Your task to perform on an android device: turn off smart reply in the gmail app Image 0: 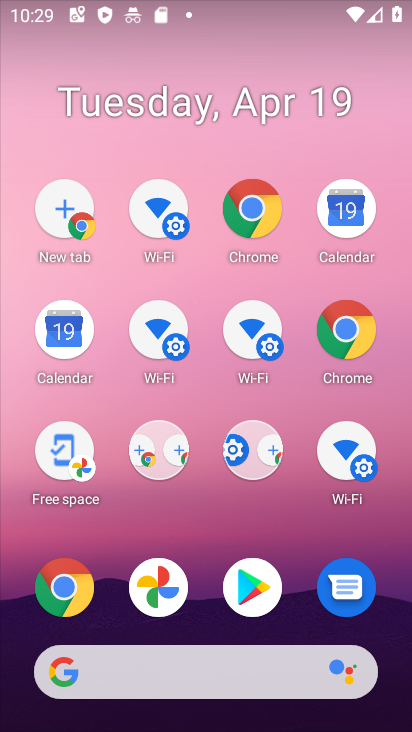
Step 0: drag from (303, 687) to (134, 299)
Your task to perform on an android device: turn off smart reply in the gmail app Image 1: 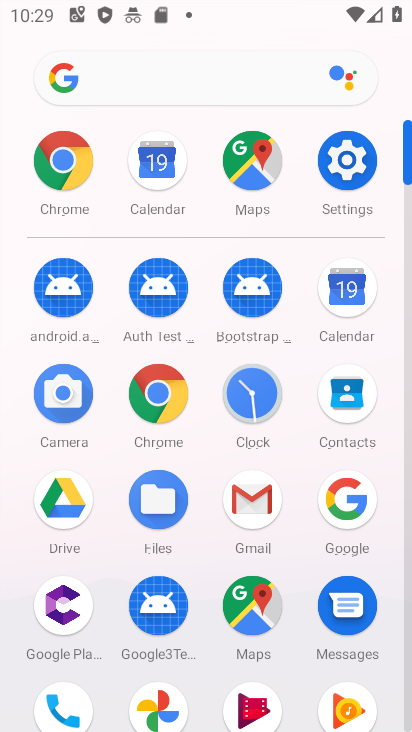
Step 1: click (253, 503)
Your task to perform on an android device: turn off smart reply in the gmail app Image 2: 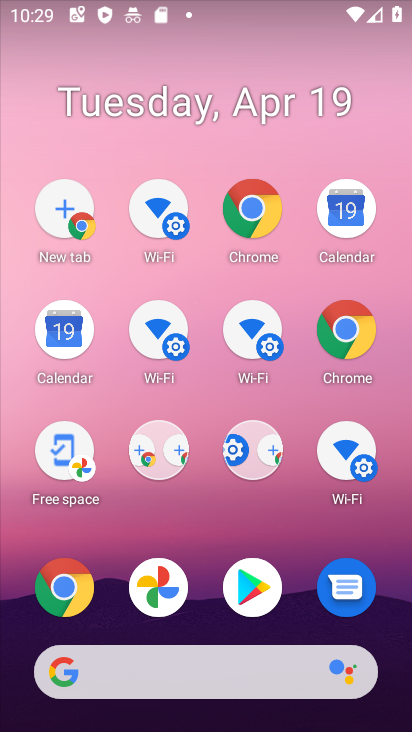
Step 2: drag from (314, 609) to (4, 131)
Your task to perform on an android device: turn off smart reply in the gmail app Image 3: 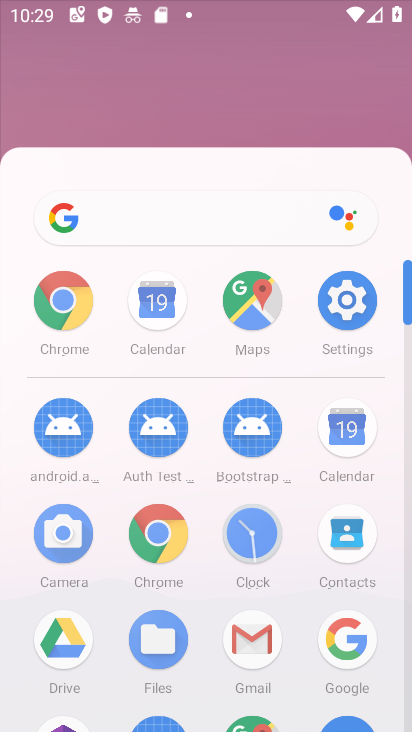
Step 3: drag from (157, 414) to (11, 88)
Your task to perform on an android device: turn off smart reply in the gmail app Image 4: 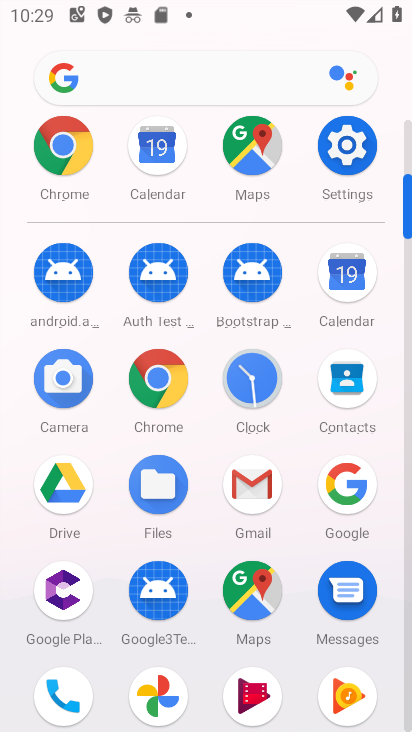
Step 4: click (244, 475)
Your task to perform on an android device: turn off smart reply in the gmail app Image 5: 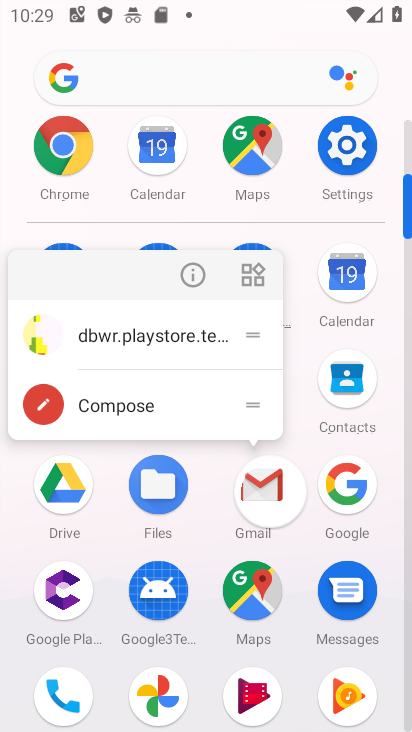
Step 5: click (262, 478)
Your task to perform on an android device: turn off smart reply in the gmail app Image 6: 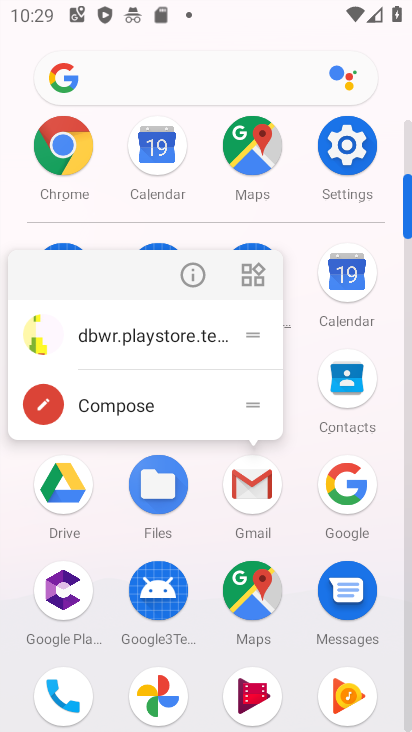
Step 6: click (260, 477)
Your task to perform on an android device: turn off smart reply in the gmail app Image 7: 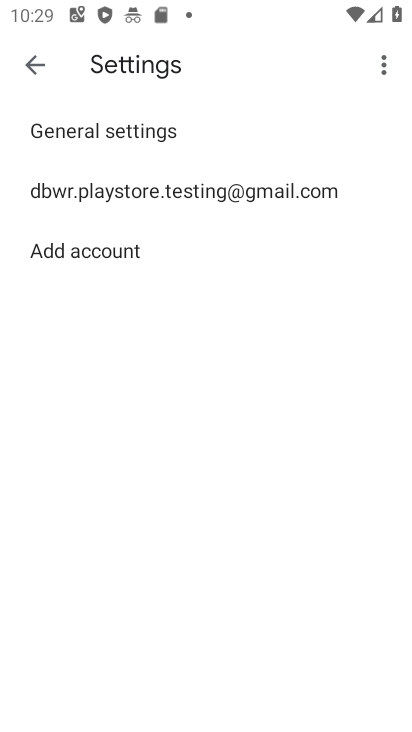
Step 7: click (124, 200)
Your task to perform on an android device: turn off smart reply in the gmail app Image 8: 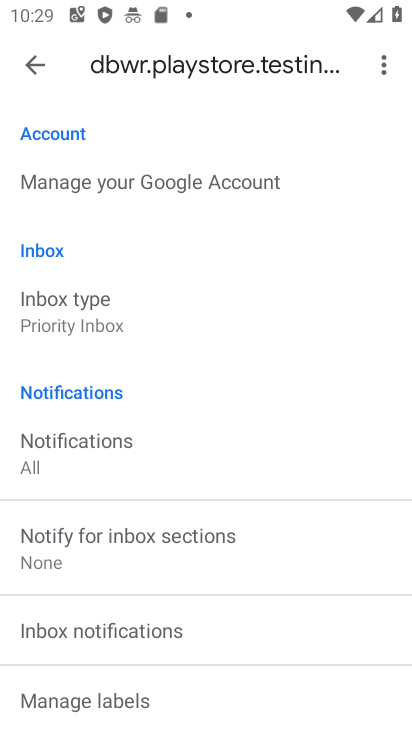
Step 8: drag from (34, 540) to (85, 334)
Your task to perform on an android device: turn off smart reply in the gmail app Image 9: 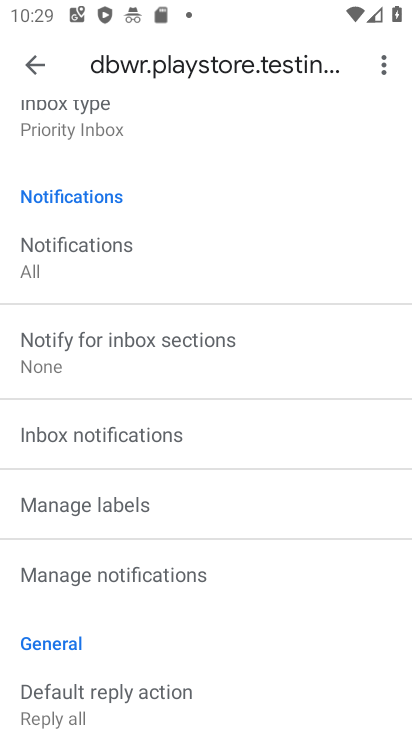
Step 9: drag from (210, 602) to (117, 315)
Your task to perform on an android device: turn off smart reply in the gmail app Image 10: 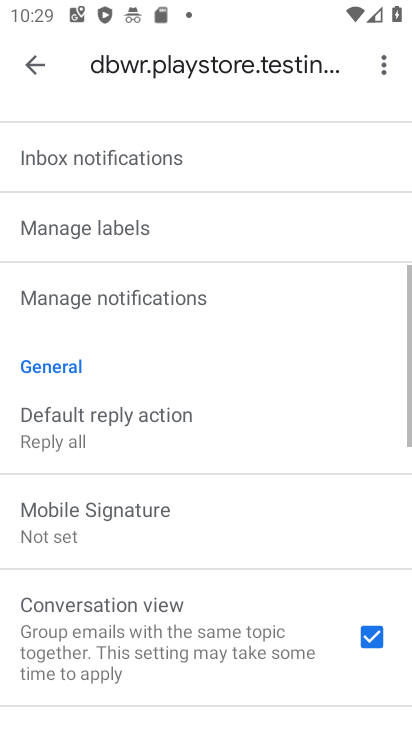
Step 10: click (52, 201)
Your task to perform on an android device: turn off smart reply in the gmail app Image 11: 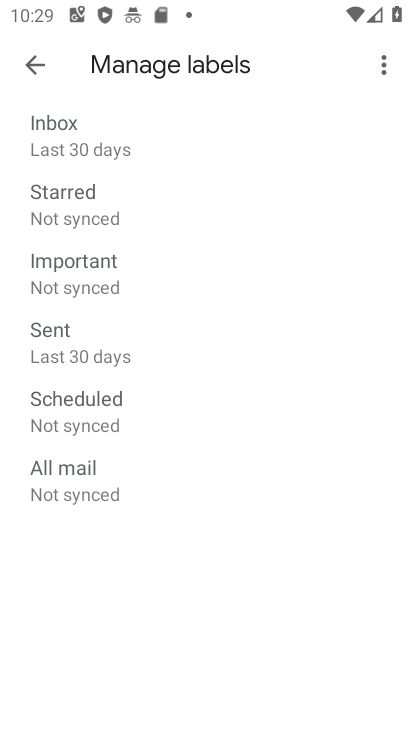
Step 11: click (30, 62)
Your task to perform on an android device: turn off smart reply in the gmail app Image 12: 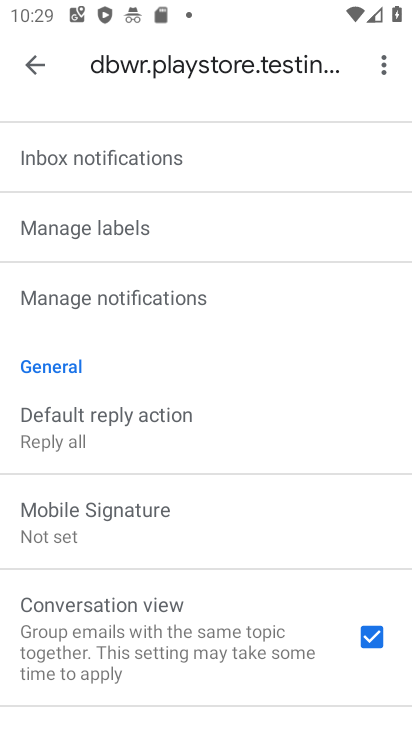
Step 12: click (108, 391)
Your task to perform on an android device: turn off smart reply in the gmail app Image 13: 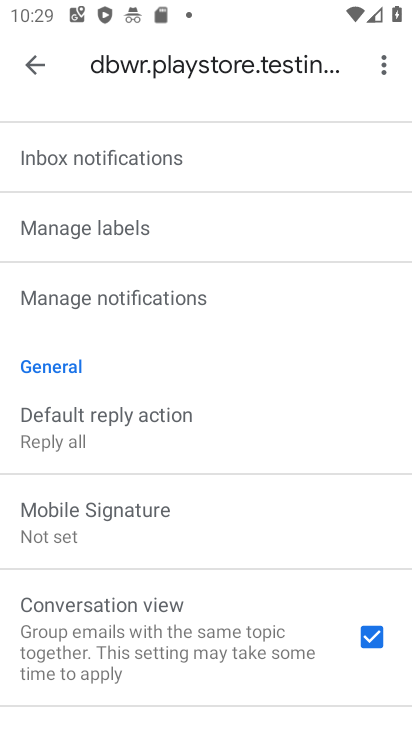
Step 13: drag from (222, 641) to (168, 222)
Your task to perform on an android device: turn off smart reply in the gmail app Image 14: 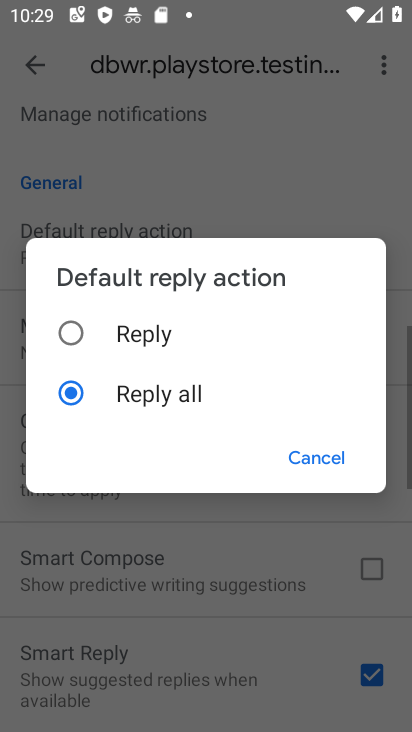
Step 14: drag from (165, 512) to (172, 192)
Your task to perform on an android device: turn off smart reply in the gmail app Image 15: 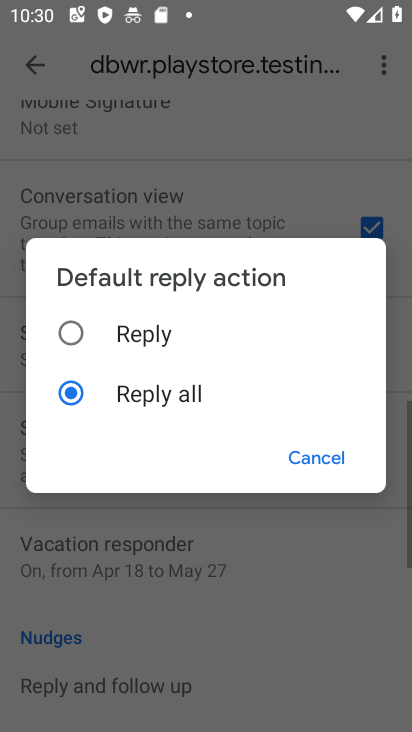
Step 15: drag from (186, 457) to (194, 249)
Your task to perform on an android device: turn off smart reply in the gmail app Image 16: 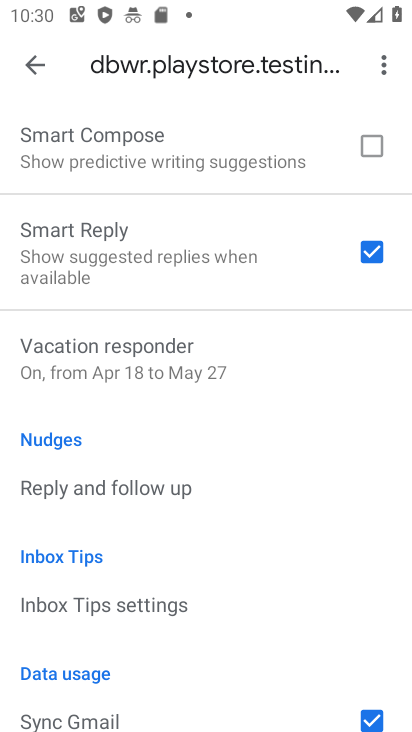
Step 16: click (377, 249)
Your task to perform on an android device: turn off smart reply in the gmail app Image 17: 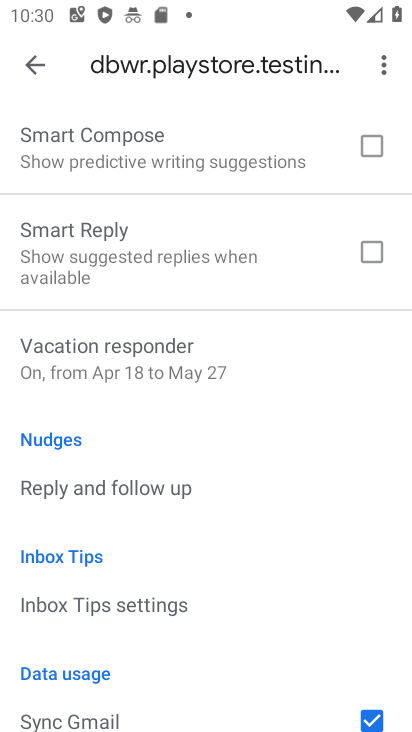
Step 17: task complete